Your task to perform on an android device: Search for the best rated 4k tvs on Walmart. Image 0: 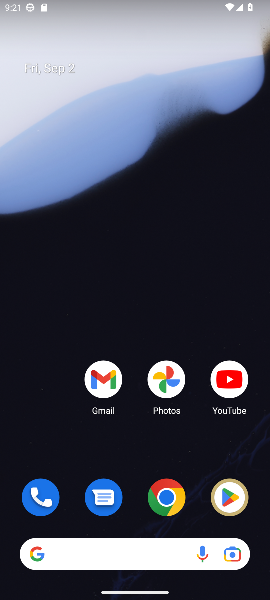
Step 0: drag from (134, 516) to (142, 180)
Your task to perform on an android device: Search for the best rated 4k tvs on Walmart. Image 1: 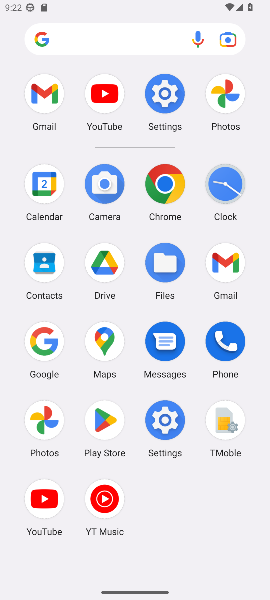
Step 1: click (48, 336)
Your task to perform on an android device: Search for the best rated 4k tvs on Walmart. Image 2: 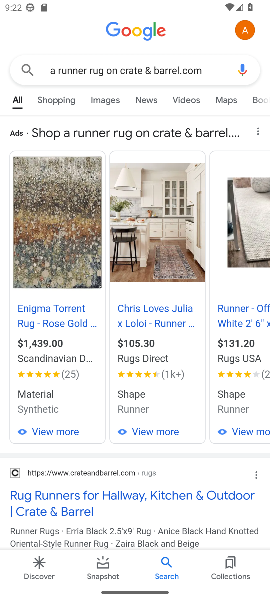
Step 2: click (194, 75)
Your task to perform on an android device: Search for the best rated 4k tvs on Walmart. Image 3: 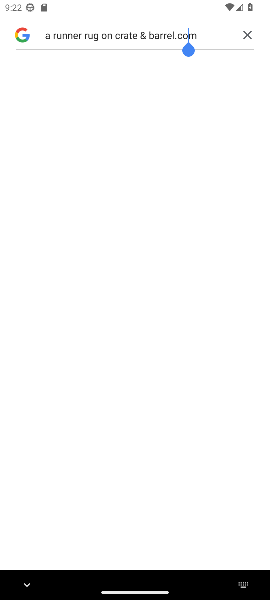
Step 3: click (245, 31)
Your task to perform on an android device: Search for the best rated 4k tvs on Walmart. Image 4: 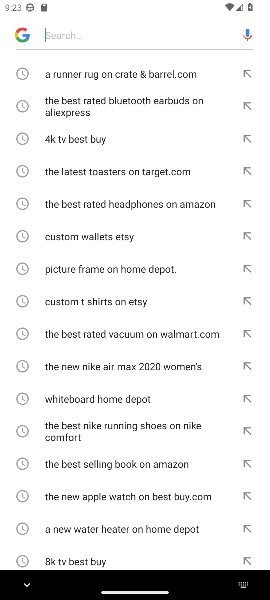
Step 4: type "4k tvs on Walmart."
Your task to perform on an android device: Search for the best rated 4k tvs on Walmart. Image 5: 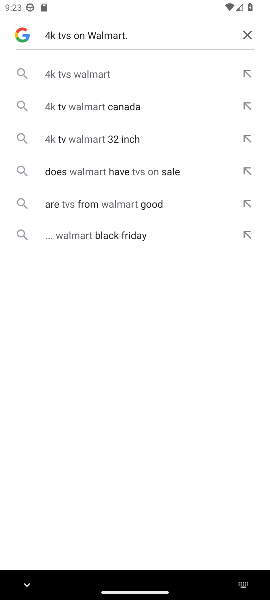
Step 5: click (68, 76)
Your task to perform on an android device: Search for the best rated 4k tvs on Walmart. Image 6: 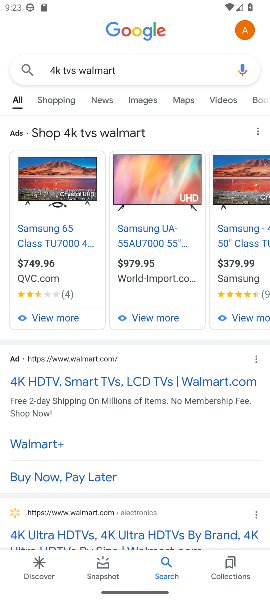
Step 6: task complete